Your task to perform on an android device: turn on airplane mode Image 0: 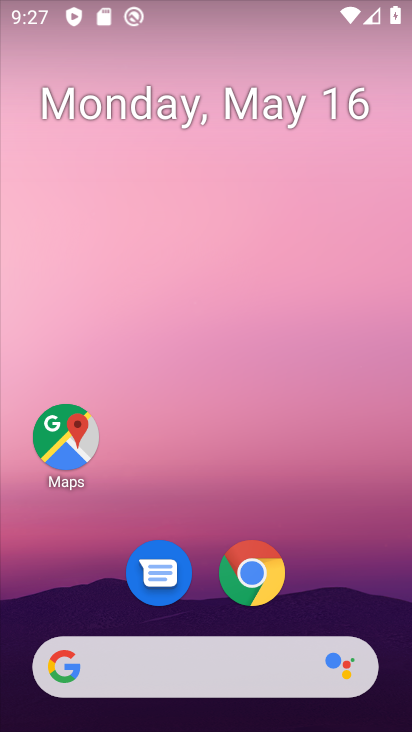
Step 0: drag from (350, 501) to (230, 51)
Your task to perform on an android device: turn on airplane mode Image 1: 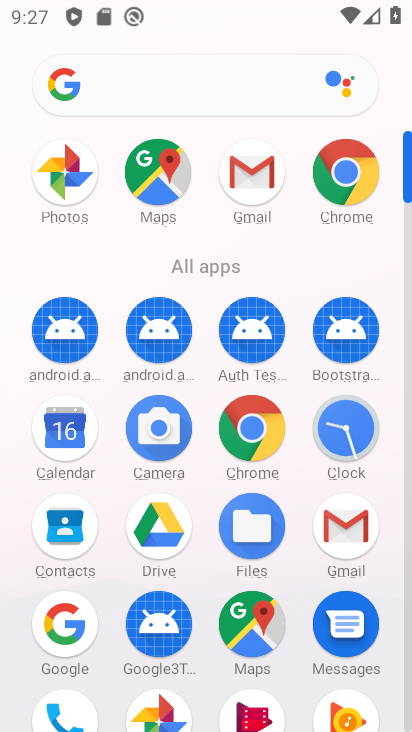
Step 1: drag from (292, 576) to (236, 202)
Your task to perform on an android device: turn on airplane mode Image 2: 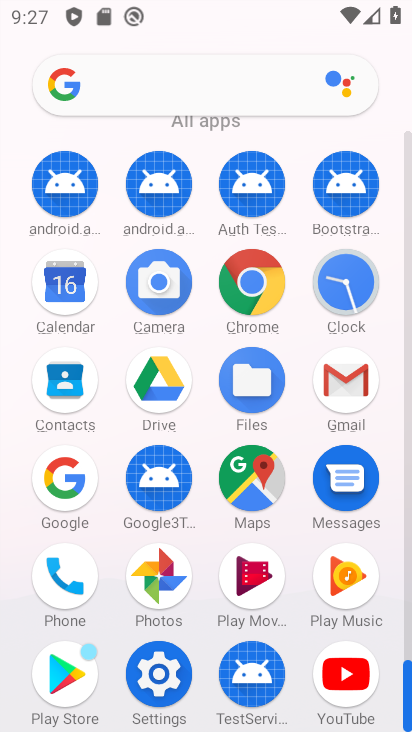
Step 2: click (165, 677)
Your task to perform on an android device: turn on airplane mode Image 3: 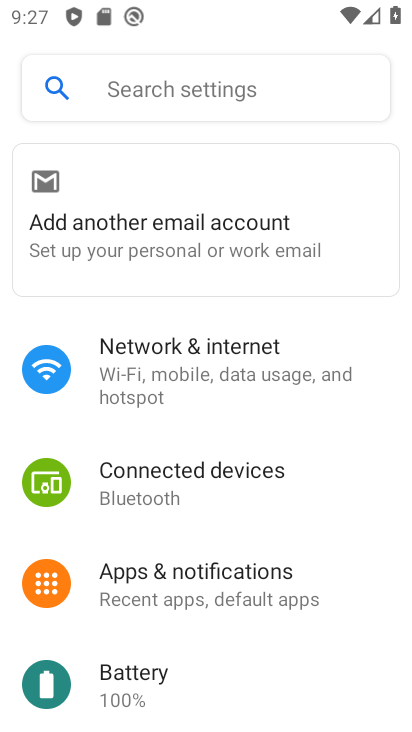
Step 3: click (177, 344)
Your task to perform on an android device: turn on airplane mode Image 4: 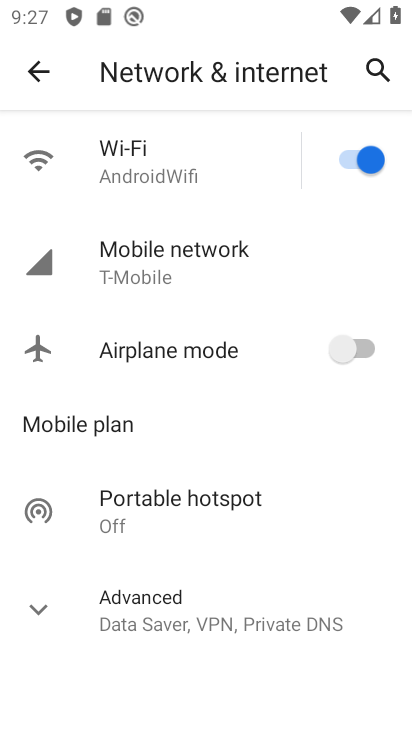
Step 4: click (361, 350)
Your task to perform on an android device: turn on airplane mode Image 5: 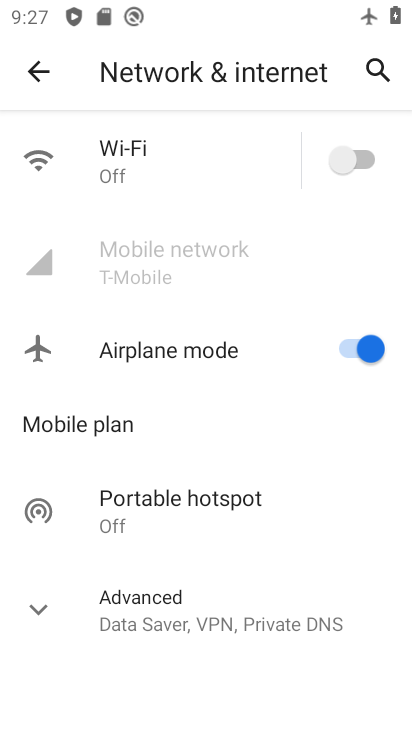
Step 5: task complete